Your task to perform on an android device: Turn on the flashlight Image 0: 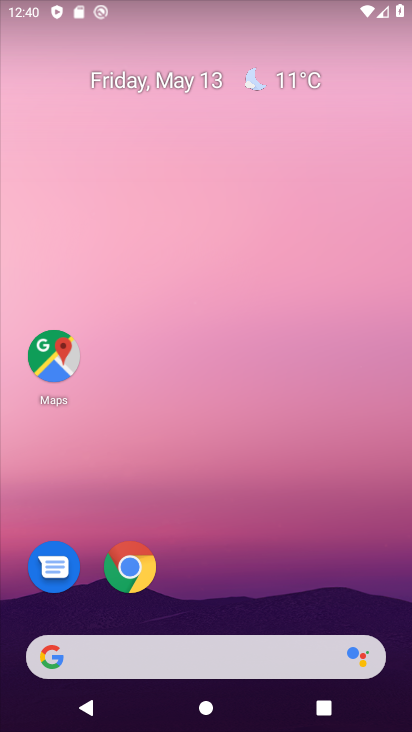
Step 0: drag from (225, 609) to (152, 134)
Your task to perform on an android device: Turn on the flashlight Image 1: 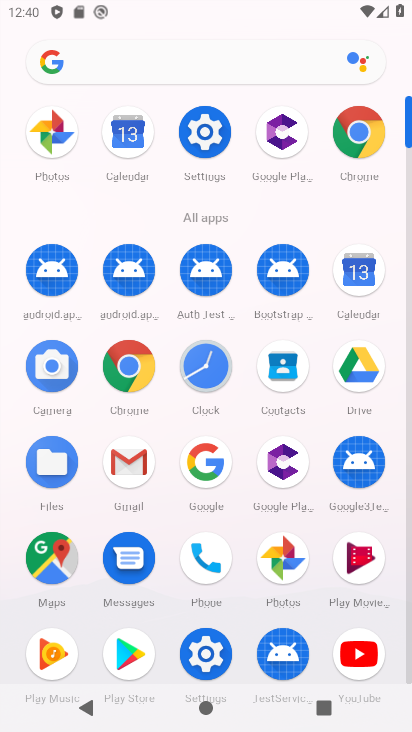
Step 1: task complete